Your task to perform on an android device: delete browsing data in the chrome app Image 0: 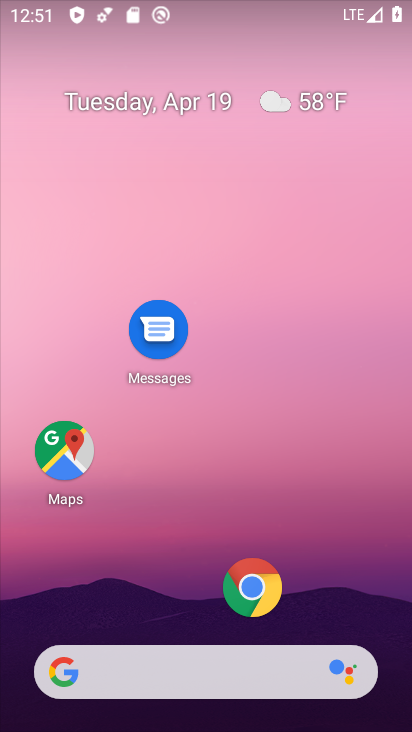
Step 0: drag from (157, 504) to (134, 115)
Your task to perform on an android device: delete browsing data in the chrome app Image 1: 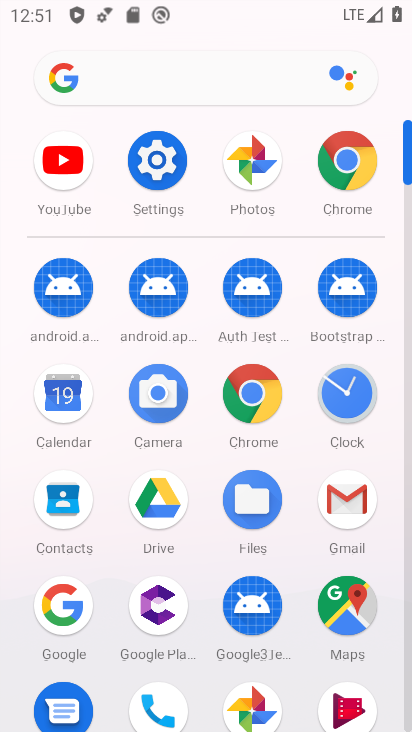
Step 1: drag from (196, 441) to (232, 402)
Your task to perform on an android device: delete browsing data in the chrome app Image 2: 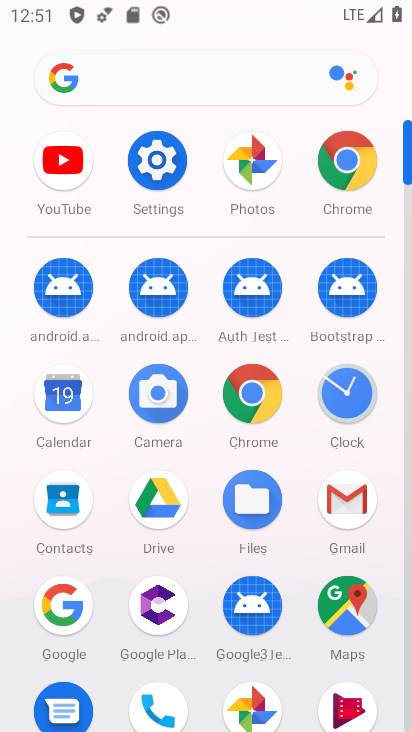
Step 2: drag from (196, 566) to (227, 499)
Your task to perform on an android device: delete browsing data in the chrome app Image 3: 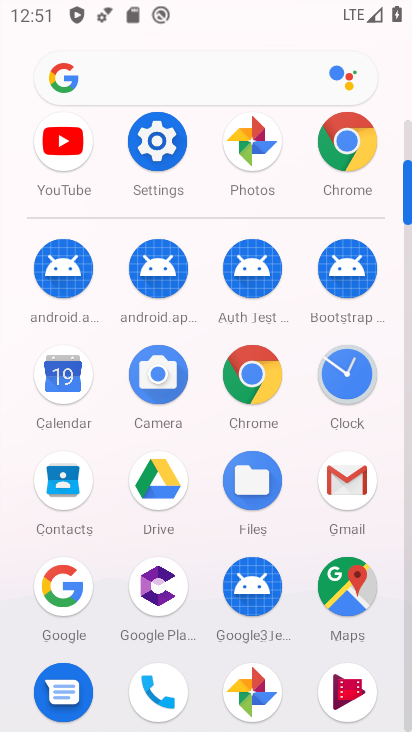
Step 3: click (252, 370)
Your task to perform on an android device: delete browsing data in the chrome app Image 4: 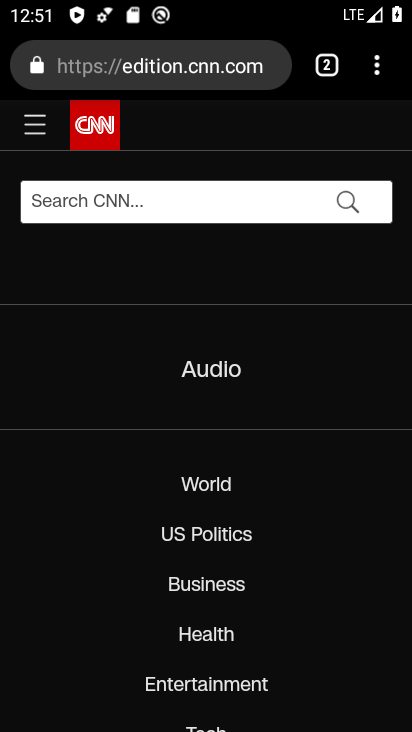
Step 4: click (373, 66)
Your task to perform on an android device: delete browsing data in the chrome app Image 5: 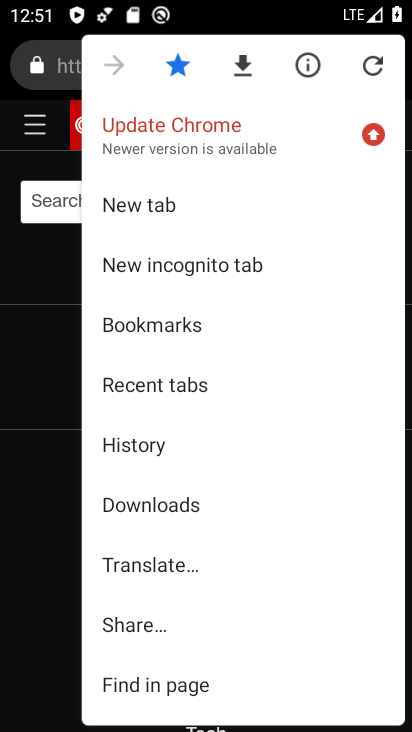
Step 5: drag from (232, 590) to (235, 246)
Your task to perform on an android device: delete browsing data in the chrome app Image 6: 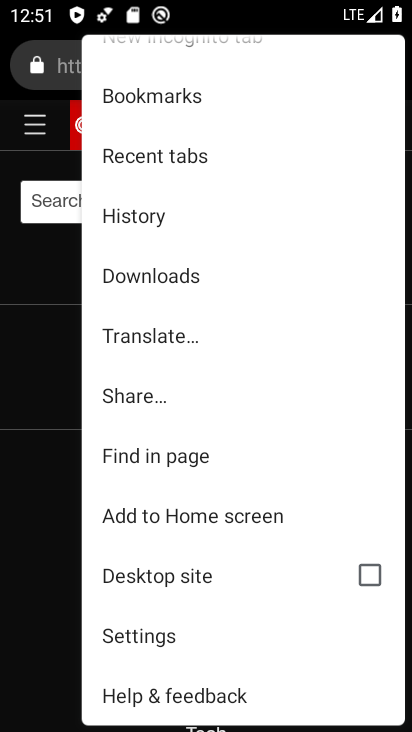
Step 6: click (145, 635)
Your task to perform on an android device: delete browsing data in the chrome app Image 7: 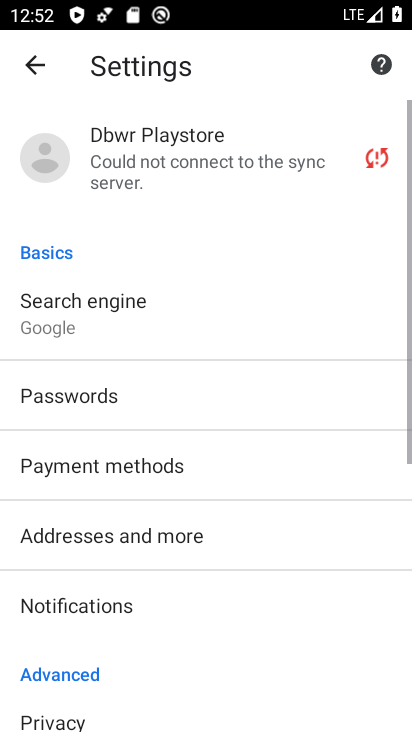
Step 7: drag from (175, 576) to (149, 256)
Your task to perform on an android device: delete browsing data in the chrome app Image 8: 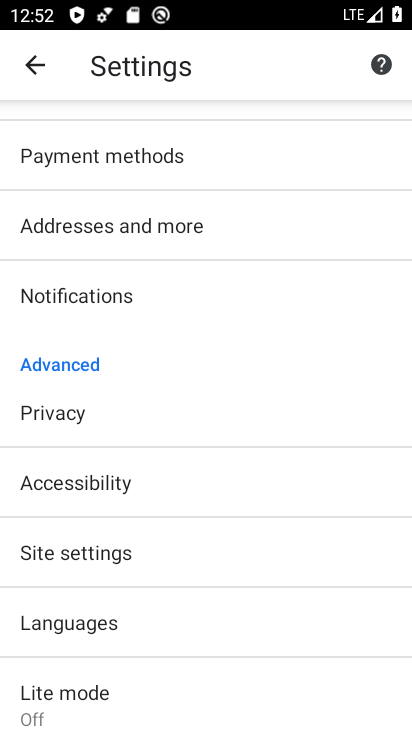
Step 8: click (55, 406)
Your task to perform on an android device: delete browsing data in the chrome app Image 9: 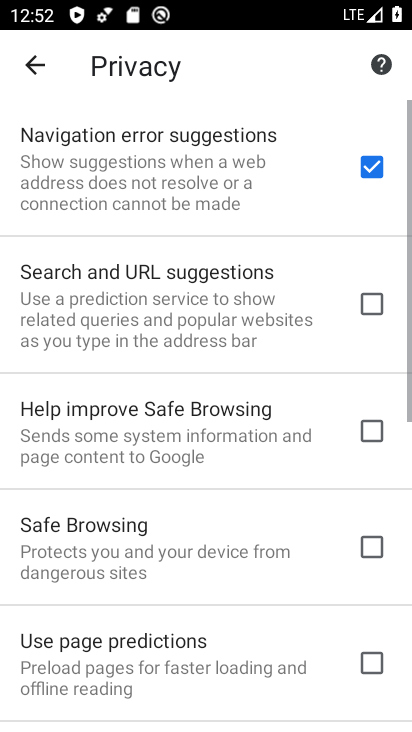
Step 9: drag from (208, 496) to (251, 195)
Your task to perform on an android device: delete browsing data in the chrome app Image 10: 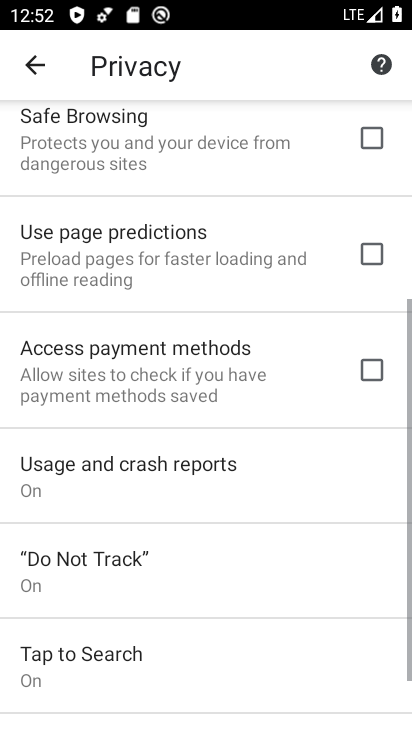
Step 10: drag from (212, 610) to (197, 162)
Your task to perform on an android device: delete browsing data in the chrome app Image 11: 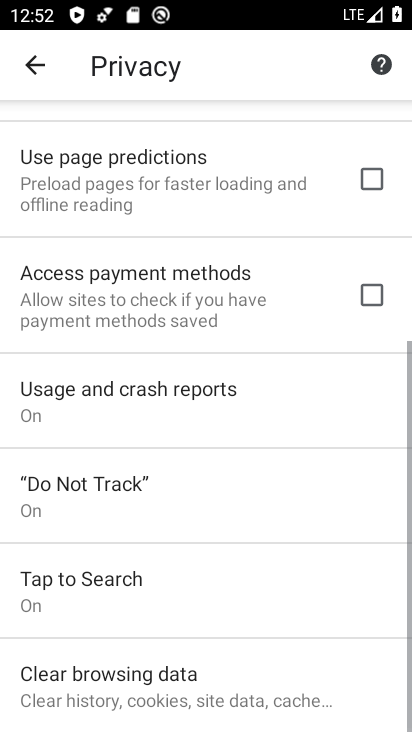
Step 11: click (156, 674)
Your task to perform on an android device: delete browsing data in the chrome app Image 12: 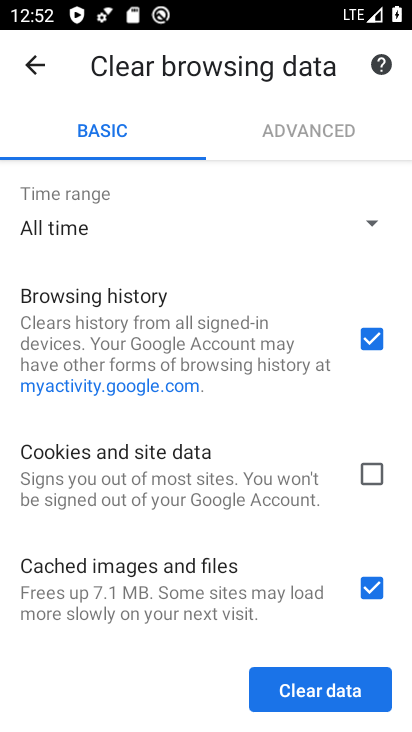
Step 12: click (367, 589)
Your task to perform on an android device: delete browsing data in the chrome app Image 13: 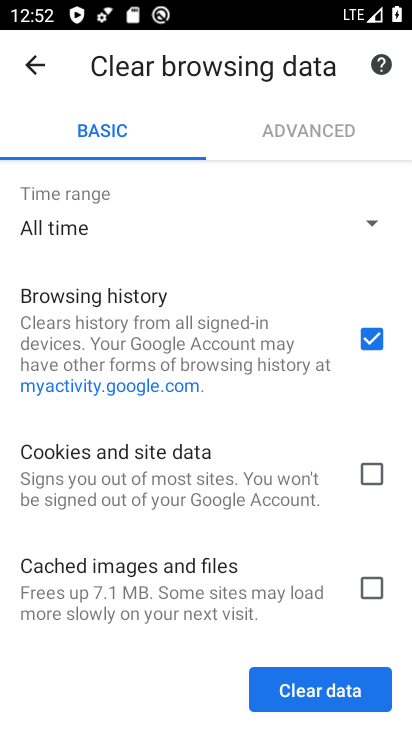
Step 13: click (314, 697)
Your task to perform on an android device: delete browsing data in the chrome app Image 14: 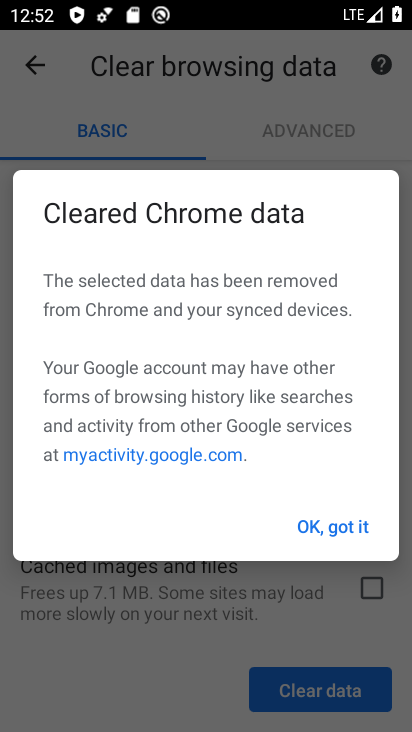
Step 14: click (331, 516)
Your task to perform on an android device: delete browsing data in the chrome app Image 15: 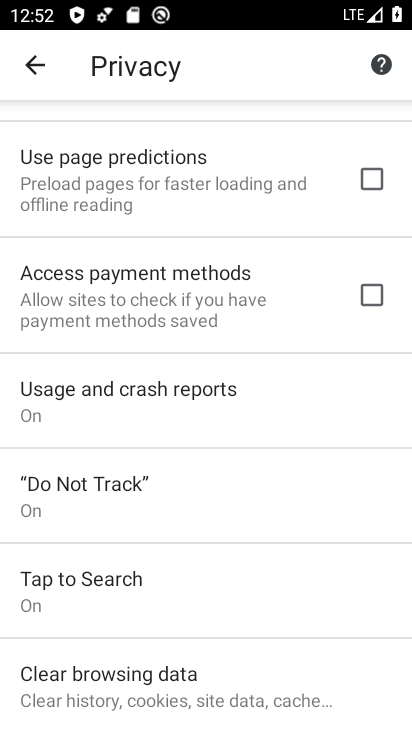
Step 15: task complete